Your task to perform on an android device: Search for pizza restaurants on Maps Image 0: 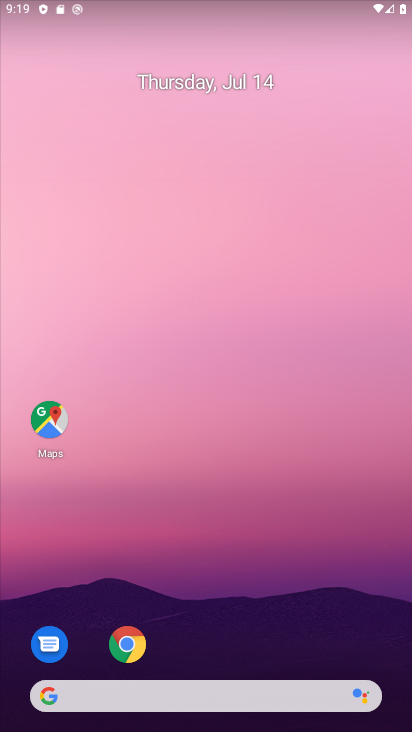
Step 0: press back button
Your task to perform on an android device: Search for pizza restaurants on Maps Image 1: 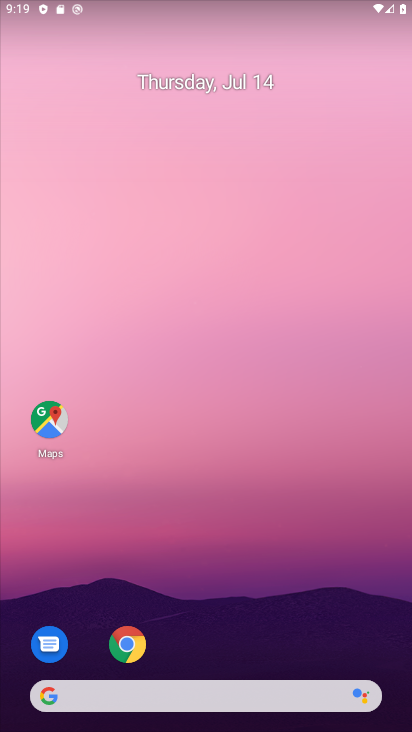
Step 1: press home button
Your task to perform on an android device: Search for pizza restaurants on Maps Image 2: 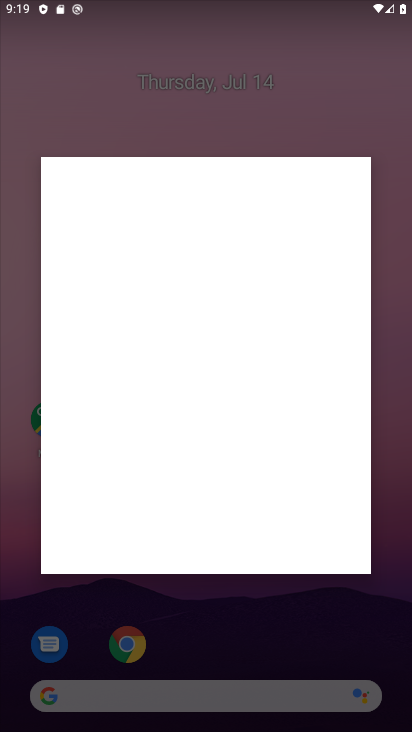
Step 2: click (167, 295)
Your task to perform on an android device: Search for pizza restaurants on Maps Image 3: 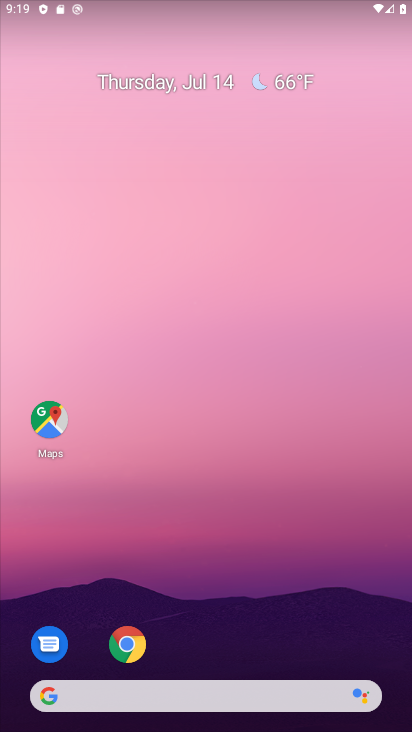
Step 3: drag from (256, 625) to (203, 258)
Your task to perform on an android device: Search for pizza restaurants on Maps Image 4: 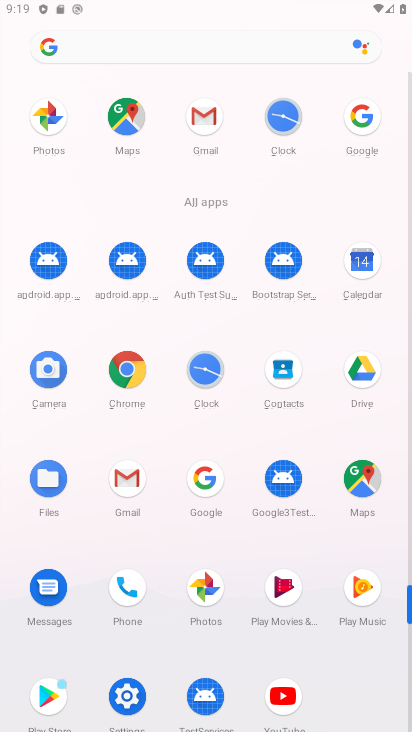
Step 4: drag from (186, 591) to (163, 328)
Your task to perform on an android device: Search for pizza restaurants on Maps Image 5: 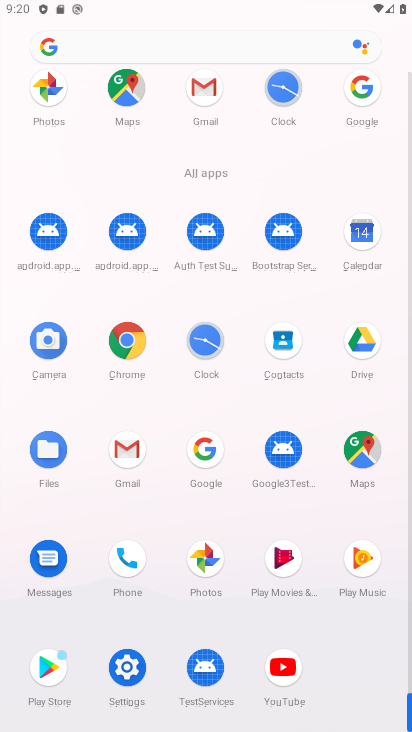
Step 5: click (356, 436)
Your task to perform on an android device: Search for pizza restaurants on Maps Image 6: 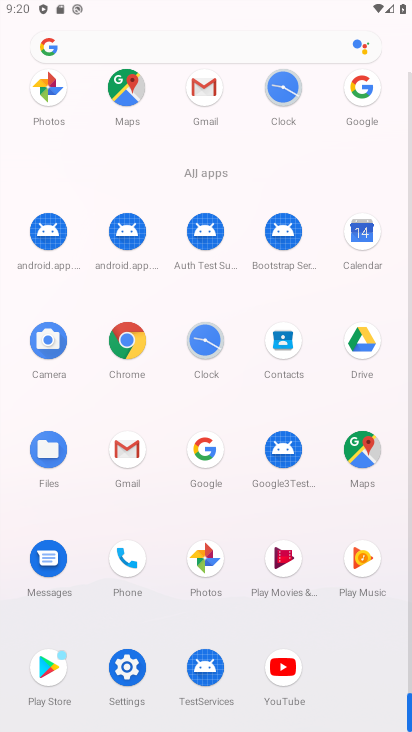
Step 6: click (357, 438)
Your task to perform on an android device: Search for pizza restaurants on Maps Image 7: 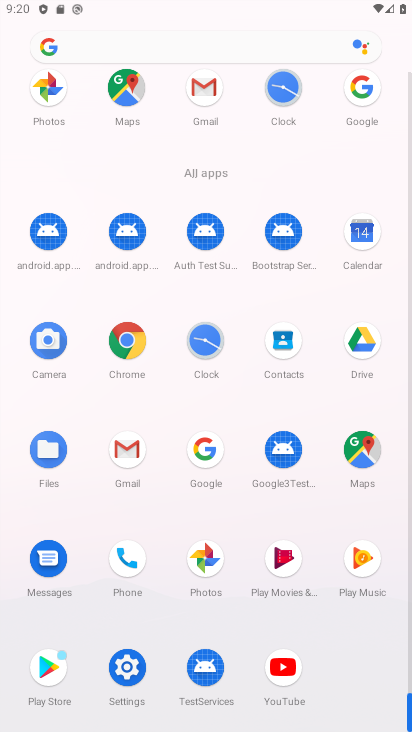
Step 7: click (357, 438)
Your task to perform on an android device: Search for pizza restaurants on Maps Image 8: 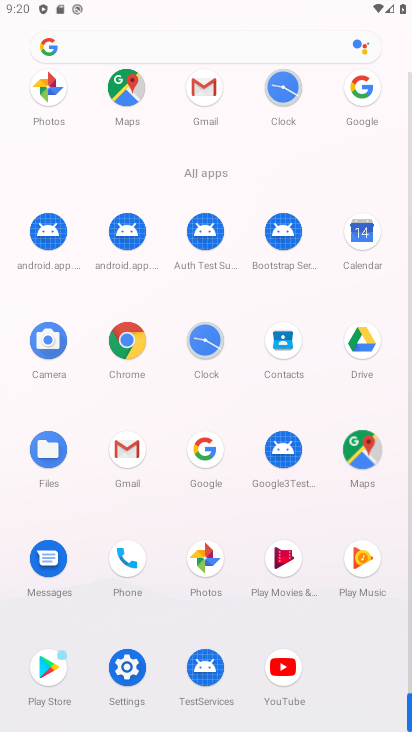
Step 8: click (357, 438)
Your task to perform on an android device: Search for pizza restaurants on Maps Image 9: 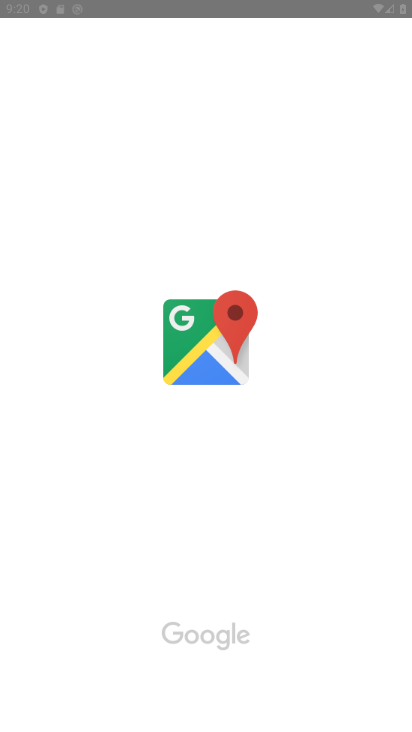
Step 9: click (357, 439)
Your task to perform on an android device: Search for pizza restaurants on Maps Image 10: 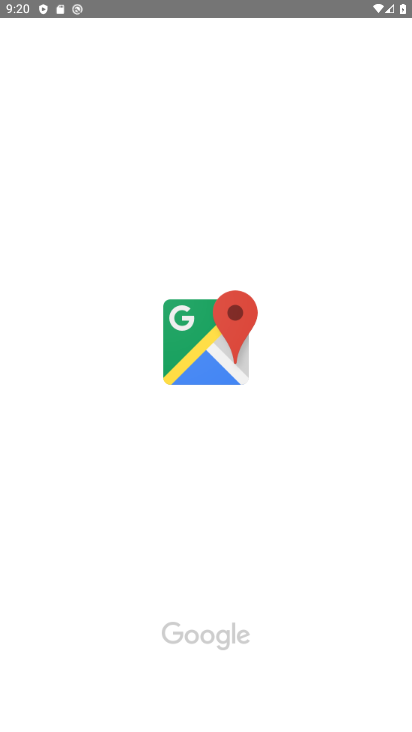
Step 10: click (357, 440)
Your task to perform on an android device: Search for pizza restaurants on Maps Image 11: 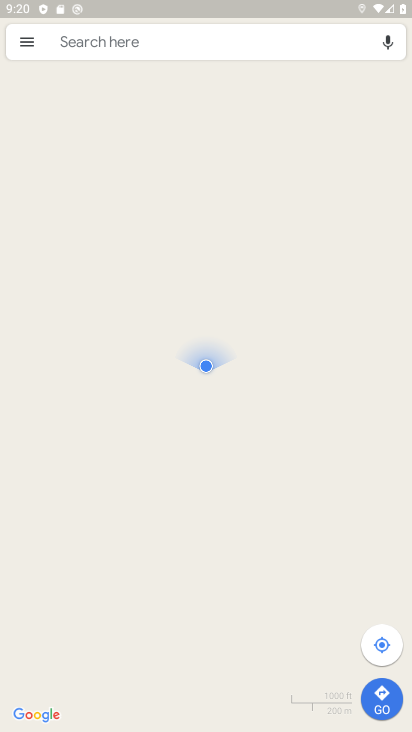
Step 11: click (67, 49)
Your task to perform on an android device: Search for pizza restaurants on Maps Image 12: 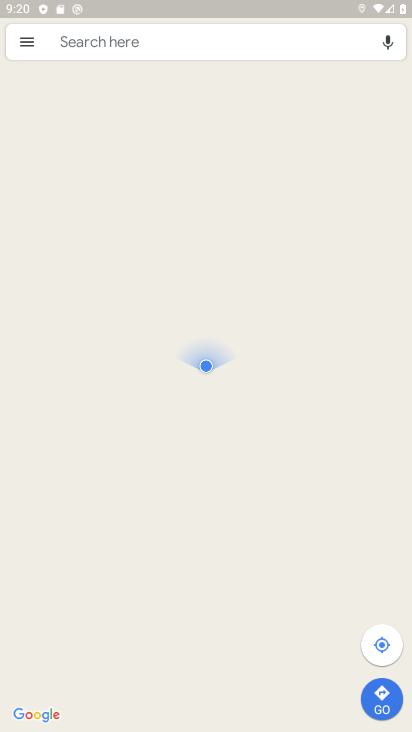
Step 12: click (70, 51)
Your task to perform on an android device: Search for pizza restaurants on Maps Image 13: 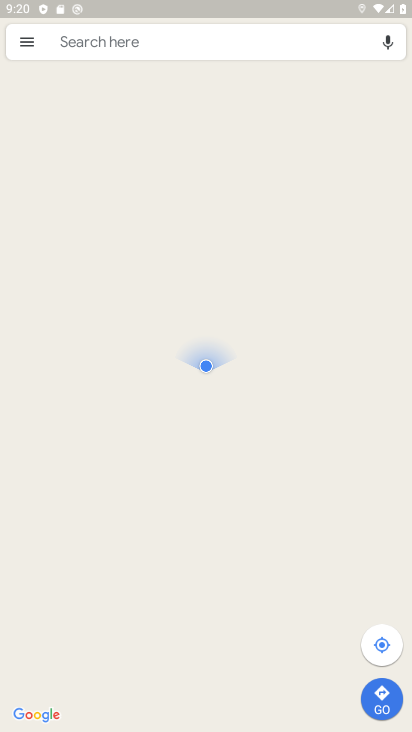
Step 13: click (73, 32)
Your task to perform on an android device: Search for pizza restaurants on Maps Image 14: 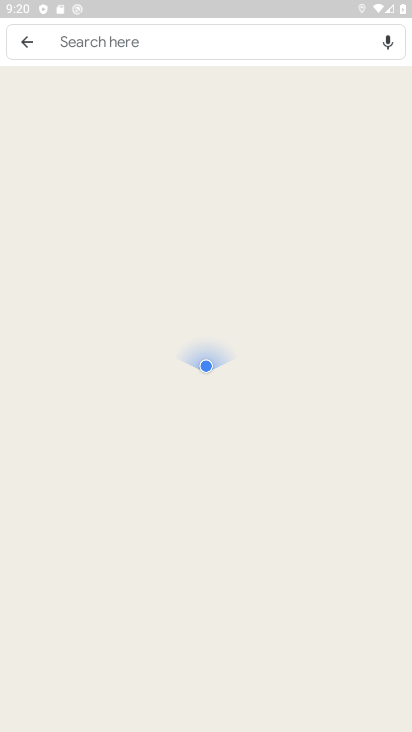
Step 14: click (86, 43)
Your task to perform on an android device: Search for pizza restaurants on Maps Image 15: 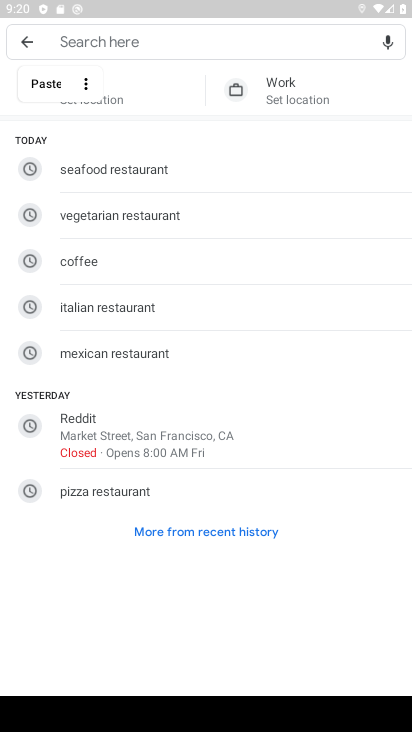
Step 15: type "pizza restaurants"
Your task to perform on an android device: Search for pizza restaurants on Maps Image 16: 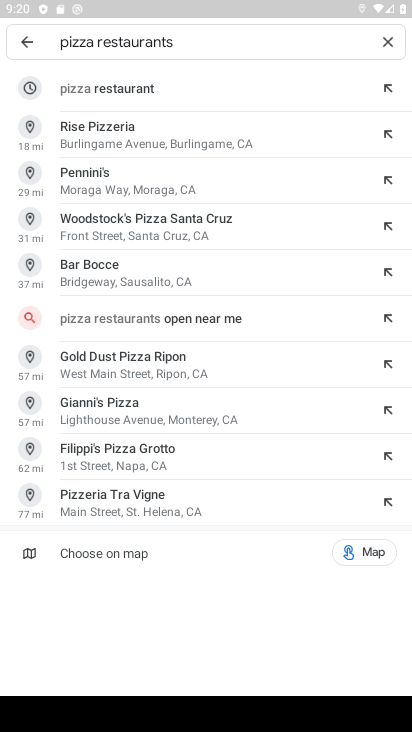
Step 16: click (125, 96)
Your task to perform on an android device: Search for pizza restaurants on Maps Image 17: 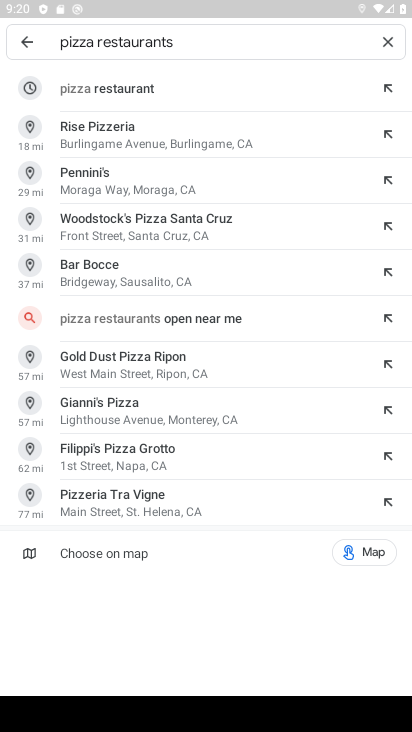
Step 17: click (123, 96)
Your task to perform on an android device: Search for pizza restaurants on Maps Image 18: 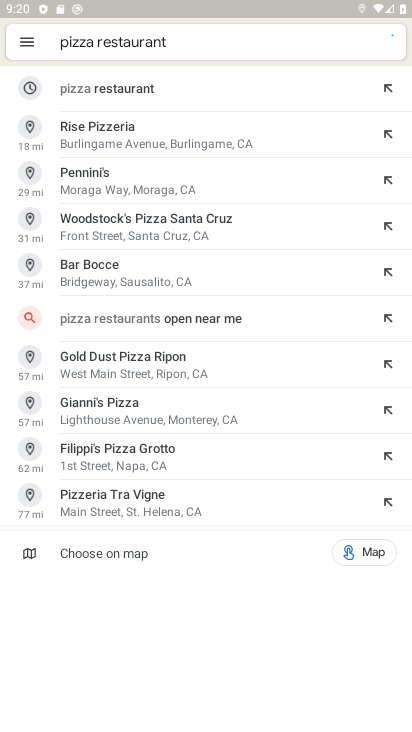
Step 18: click (122, 95)
Your task to perform on an android device: Search for pizza restaurants on Maps Image 19: 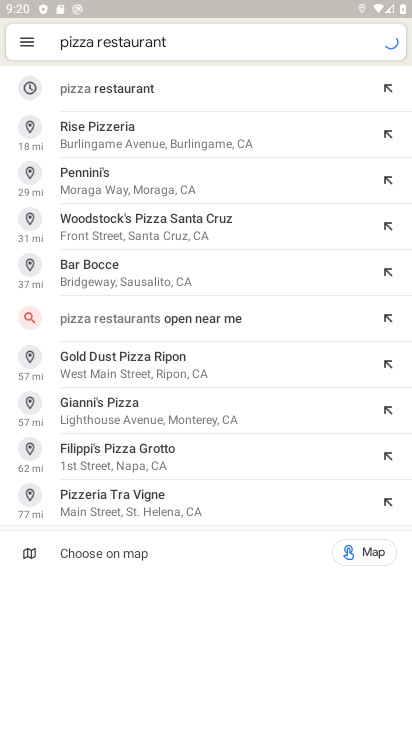
Step 19: click (122, 95)
Your task to perform on an android device: Search for pizza restaurants on Maps Image 20: 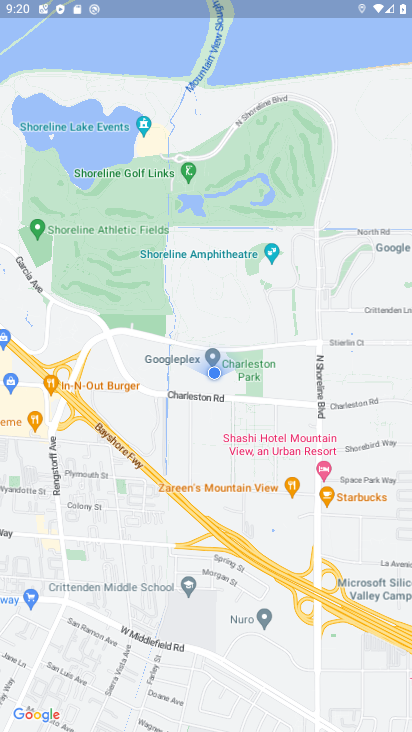
Step 20: task complete